Your task to perform on an android device: Open the Play Movies app and select the watchlist tab. Image 0: 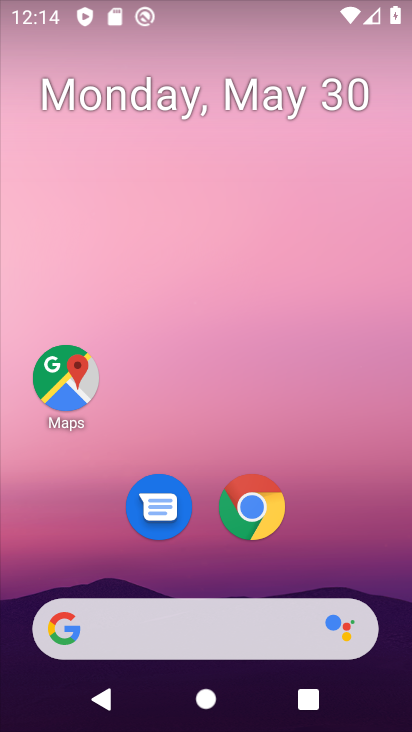
Step 0: drag from (355, 453) to (355, 77)
Your task to perform on an android device: Open the Play Movies app and select the watchlist tab. Image 1: 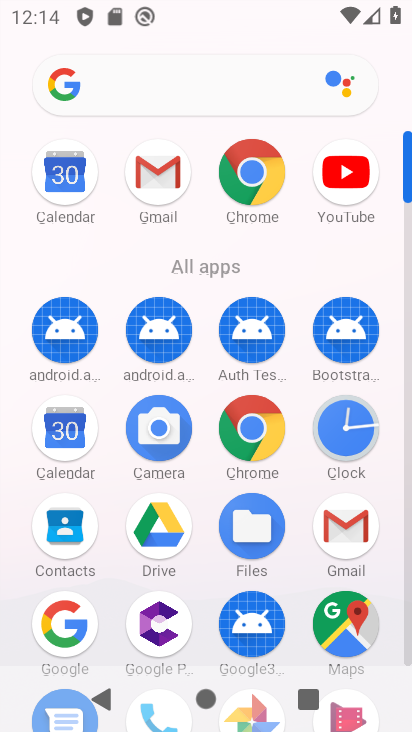
Step 1: drag from (293, 594) to (311, 389)
Your task to perform on an android device: Open the Play Movies app and select the watchlist tab. Image 2: 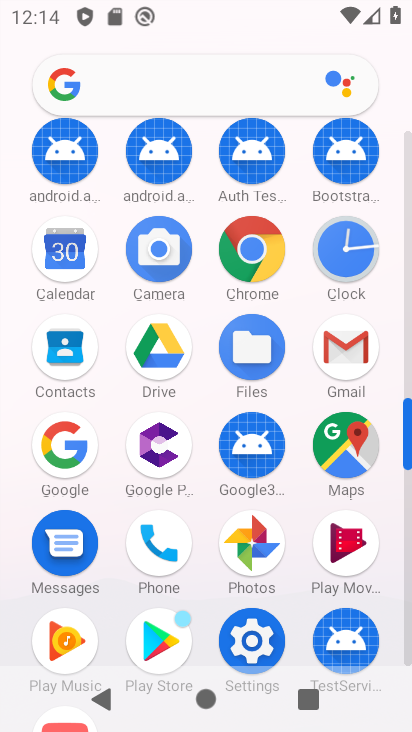
Step 2: click (341, 557)
Your task to perform on an android device: Open the Play Movies app and select the watchlist tab. Image 3: 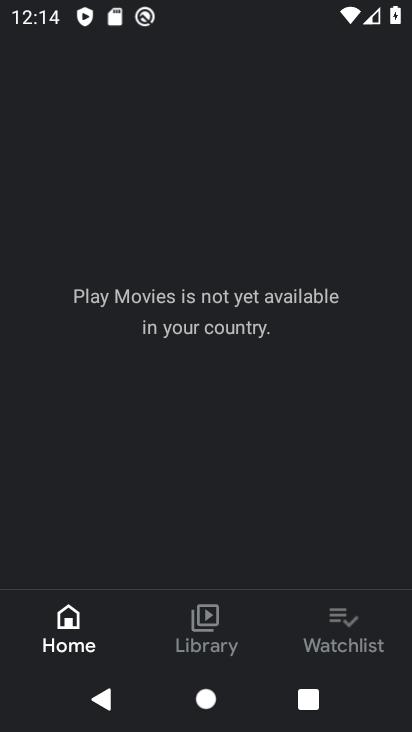
Step 3: click (343, 640)
Your task to perform on an android device: Open the Play Movies app and select the watchlist tab. Image 4: 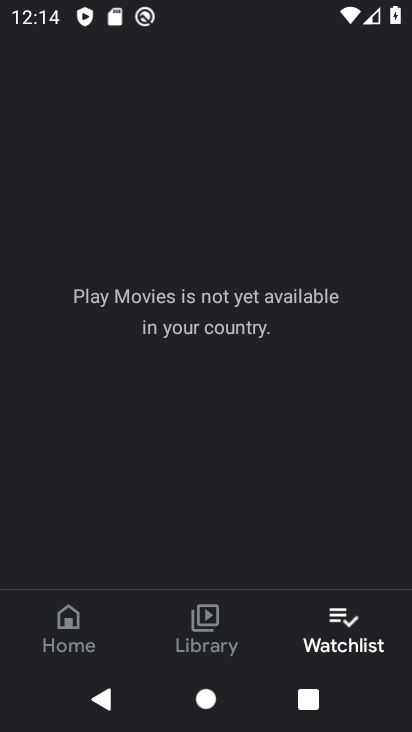
Step 4: task complete